Your task to perform on an android device: Open Youtube and go to "Your channel" Image 0: 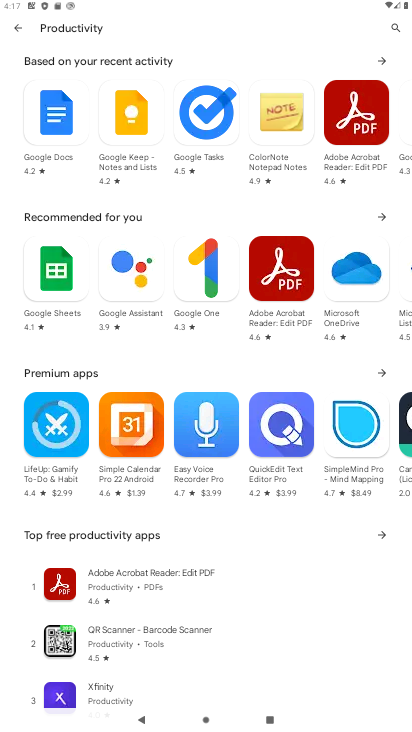
Step 0: press home button
Your task to perform on an android device: Open Youtube and go to "Your channel" Image 1: 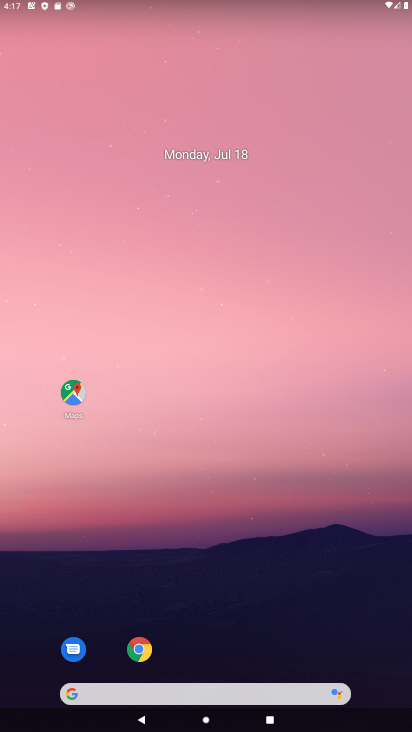
Step 1: drag from (198, 656) to (143, 293)
Your task to perform on an android device: Open Youtube and go to "Your channel" Image 2: 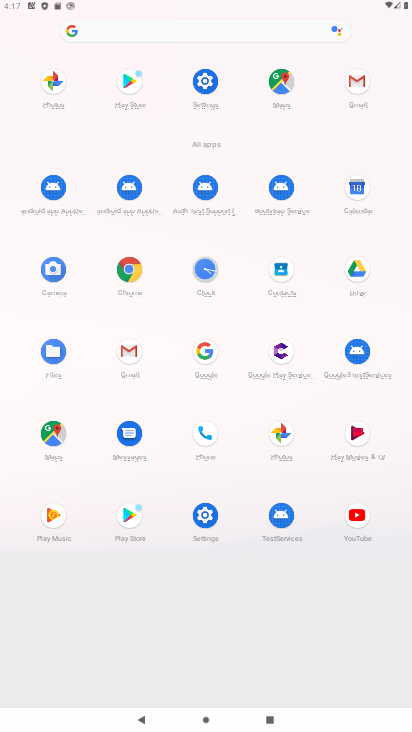
Step 2: click (358, 509)
Your task to perform on an android device: Open Youtube and go to "Your channel" Image 3: 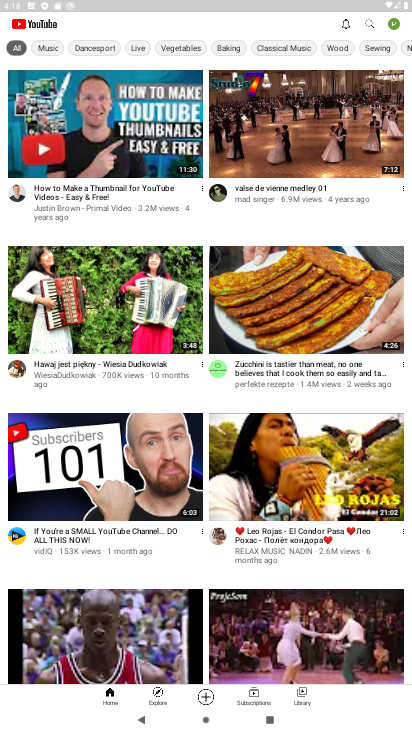
Step 3: click (364, 19)
Your task to perform on an android device: Open Youtube and go to "Your channel" Image 4: 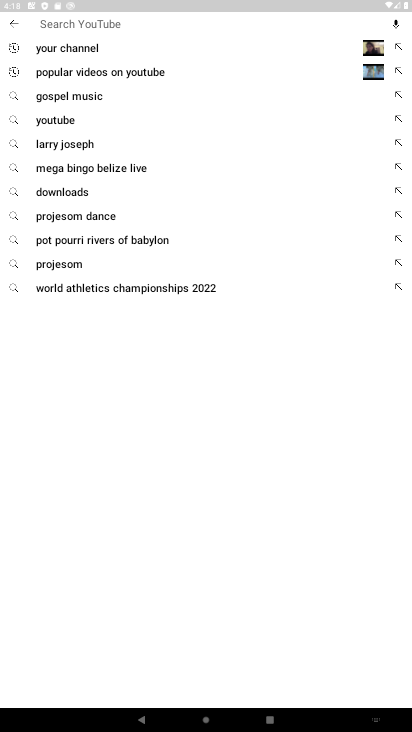
Step 4: click (114, 54)
Your task to perform on an android device: Open Youtube and go to "Your channel" Image 5: 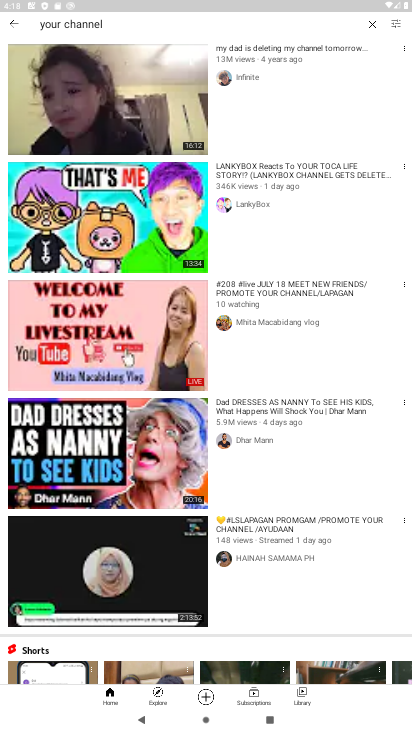
Step 5: task complete